Your task to perform on an android device: turn on notifications settings in the gmail app Image 0: 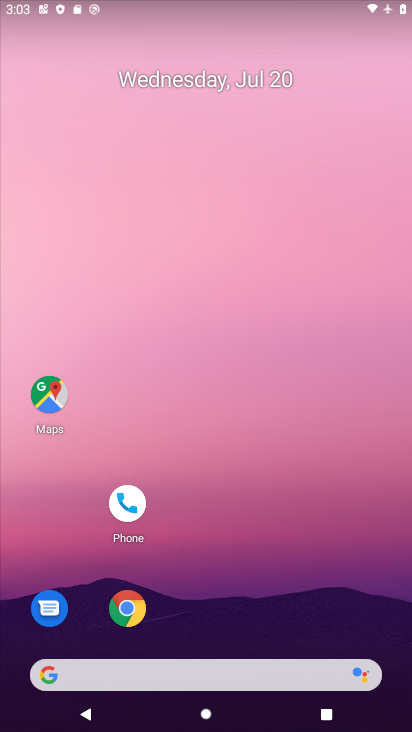
Step 0: drag from (282, 605) to (260, 6)
Your task to perform on an android device: turn on notifications settings in the gmail app Image 1: 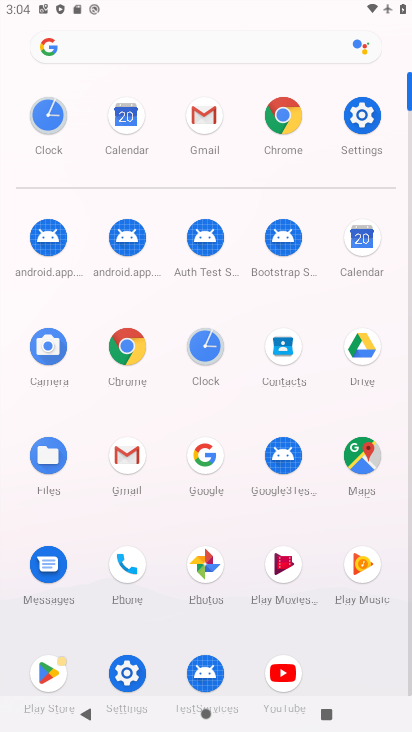
Step 1: click (197, 108)
Your task to perform on an android device: turn on notifications settings in the gmail app Image 2: 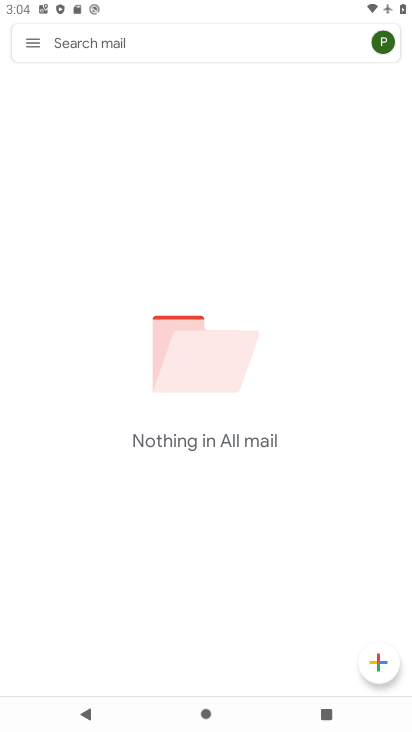
Step 2: click (35, 45)
Your task to perform on an android device: turn on notifications settings in the gmail app Image 3: 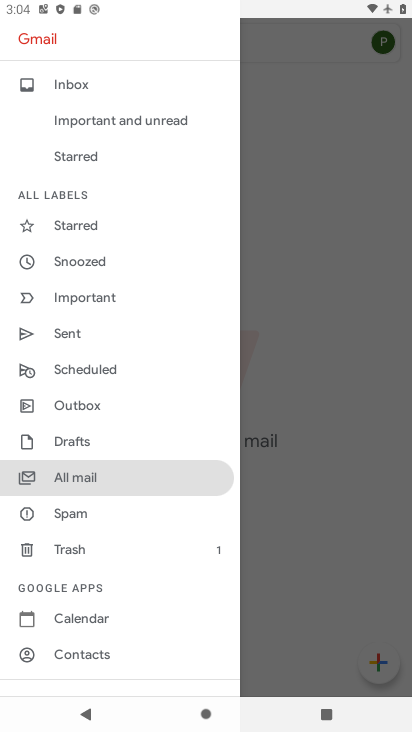
Step 3: drag from (92, 661) to (133, 289)
Your task to perform on an android device: turn on notifications settings in the gmail app Image 4: 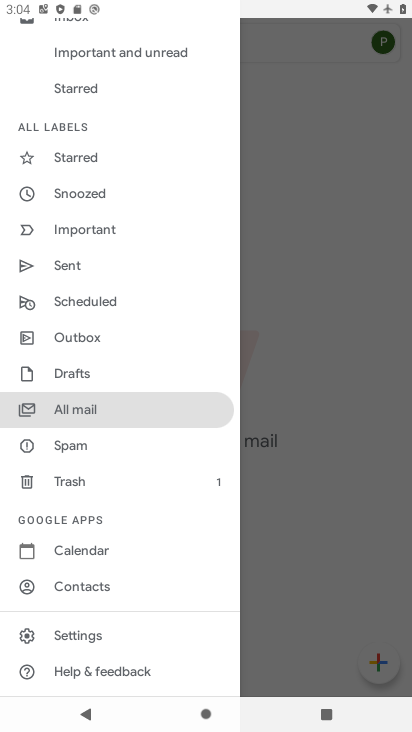
Step 4: click (98, 640)
Your task to perform on an android device: turn on notifications settings in the gmail app Image 5: 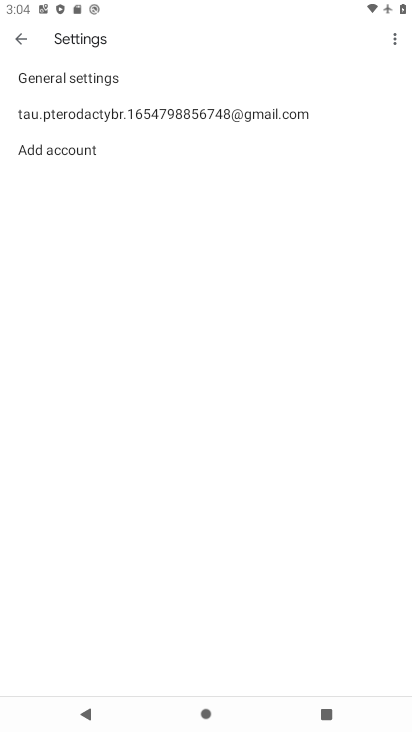
Step 5: click (277, 121)
Your task to perform on an android device: turn on notifications settings in the gmail app Image 6: 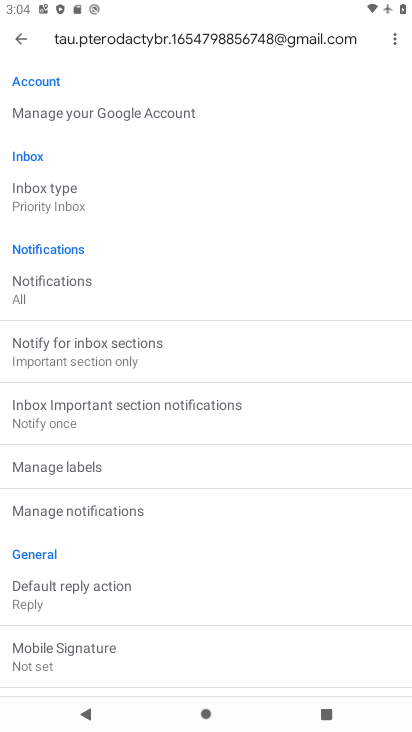
Step 6: click (70, 509)
Your task to perform on an android device: turn on notifications settings in the gmail app Image 7: 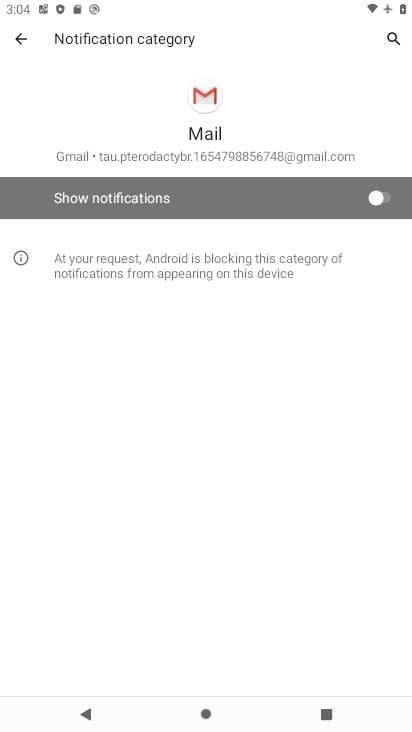
Step 7: click (366, 178)
Your task to perform on an android device: turn on notifications settings in the gmail app Image 8: 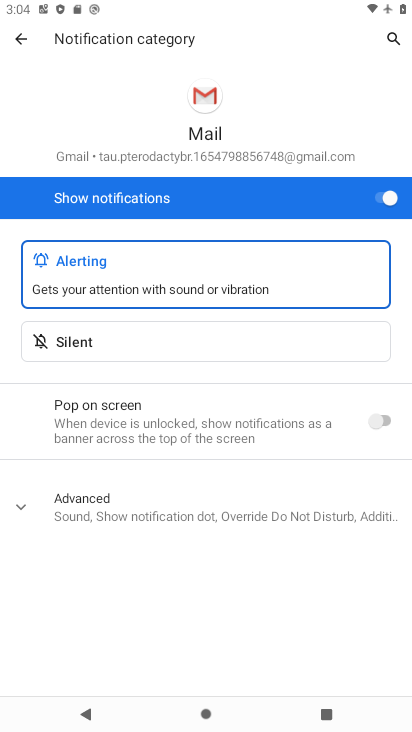
Step 8: task complete